Your task to perform on an android device: Is it going to rain today? Image 0: 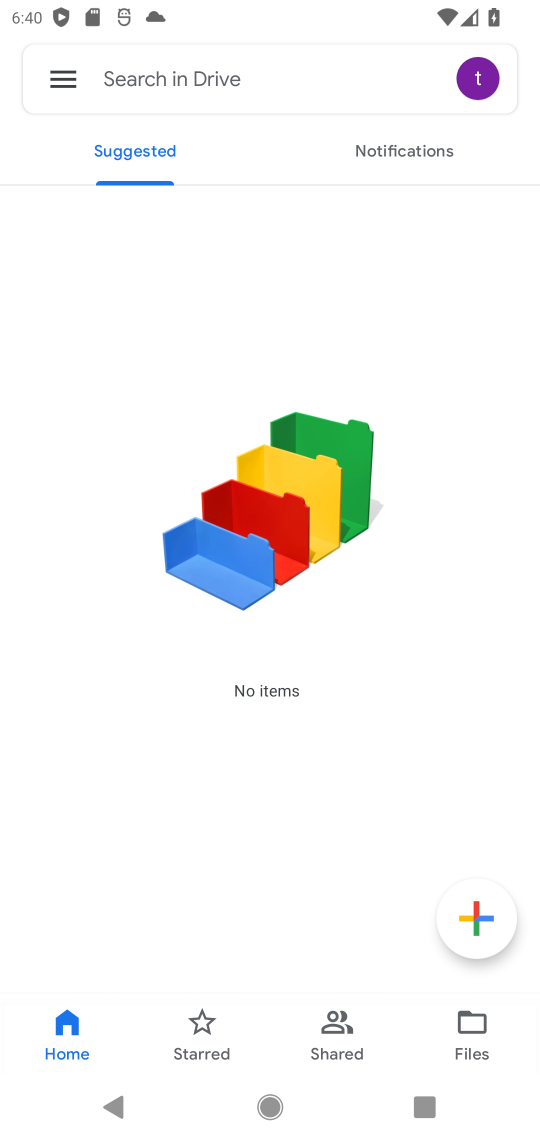
Step 0: press back button
Your task to perform on an android device: Is it going to rain today? Image 1: 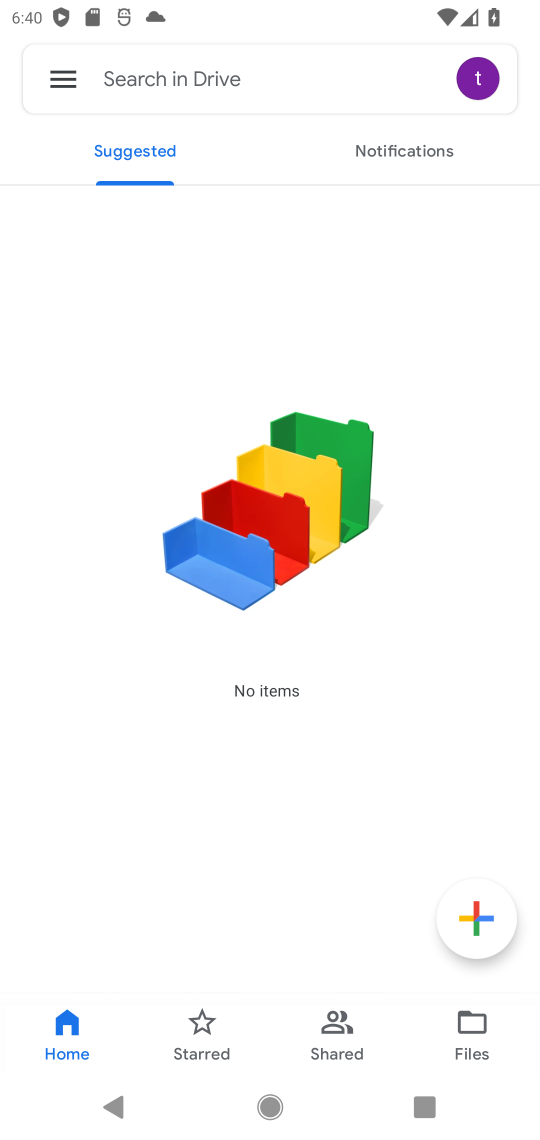
Step 1: press back button
Your task to perform on an android device: Is it going to rain today? Image 2: 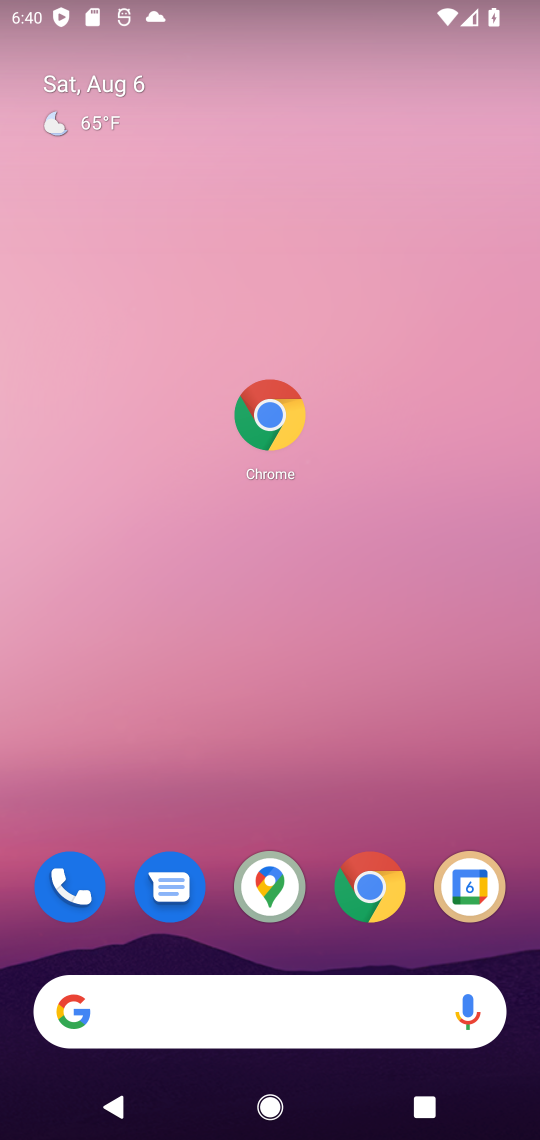
Step 2: click (199, 291)
Your task to perform on an android device: Is it going to rain today? Image 3: 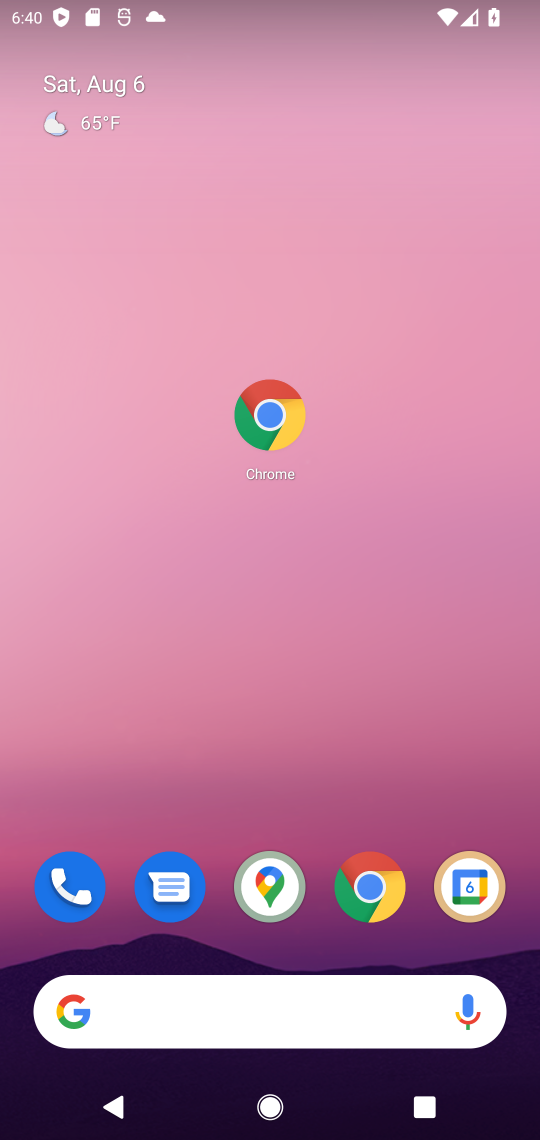
Step 3: drag from (265, 612) to (218, 200)
Your task to perform on an android device: Is it going to rain today? Image 4: 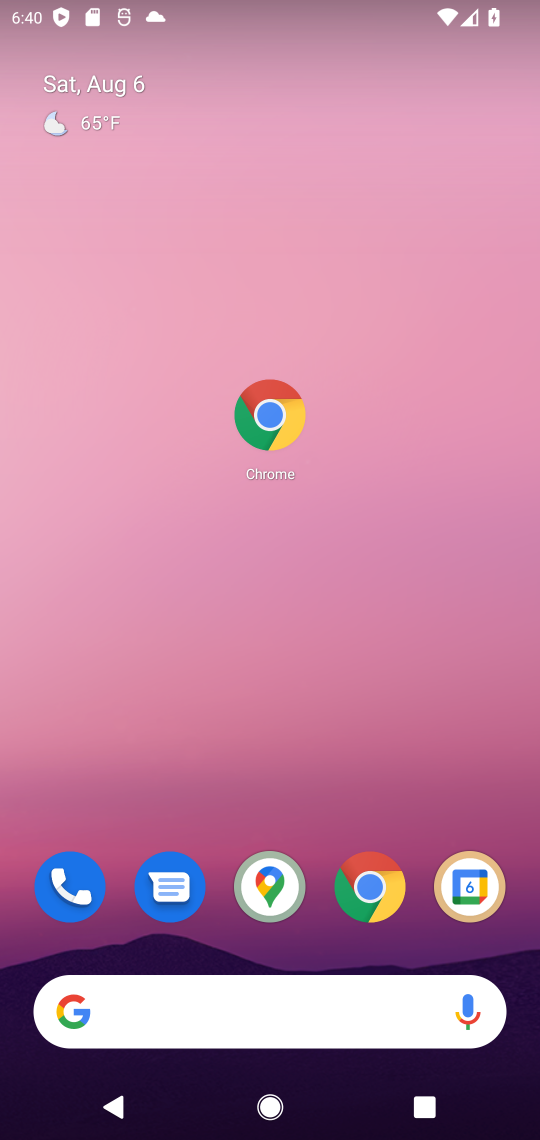
Step 4: drag from (356, 516) to (320, 157)
Your task to perform on an android device: Is it going to rain today? Image 5: 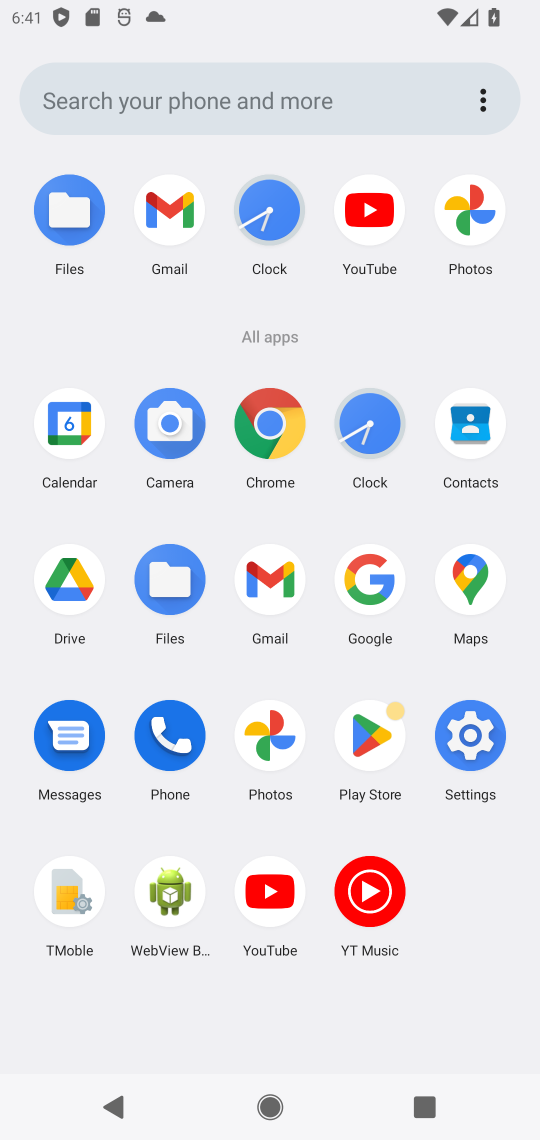
Step 5: click (294, 436)
Your task to perform on an android device: Is it going to rain today? Image 6: 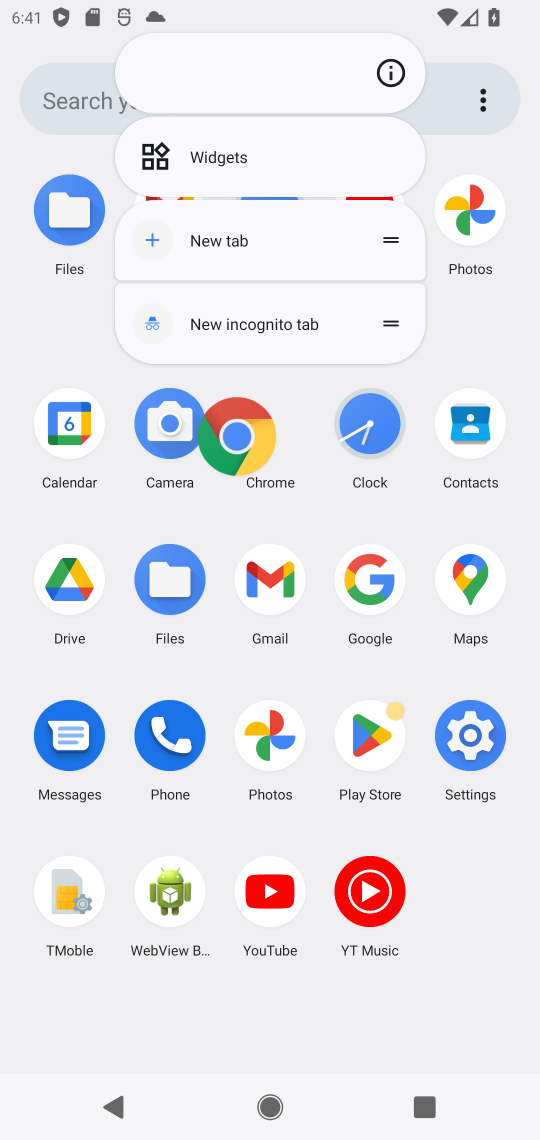
Step 6: click (260, 450)
Your task to perform on an android device: Is it going to rain today? Image 7: 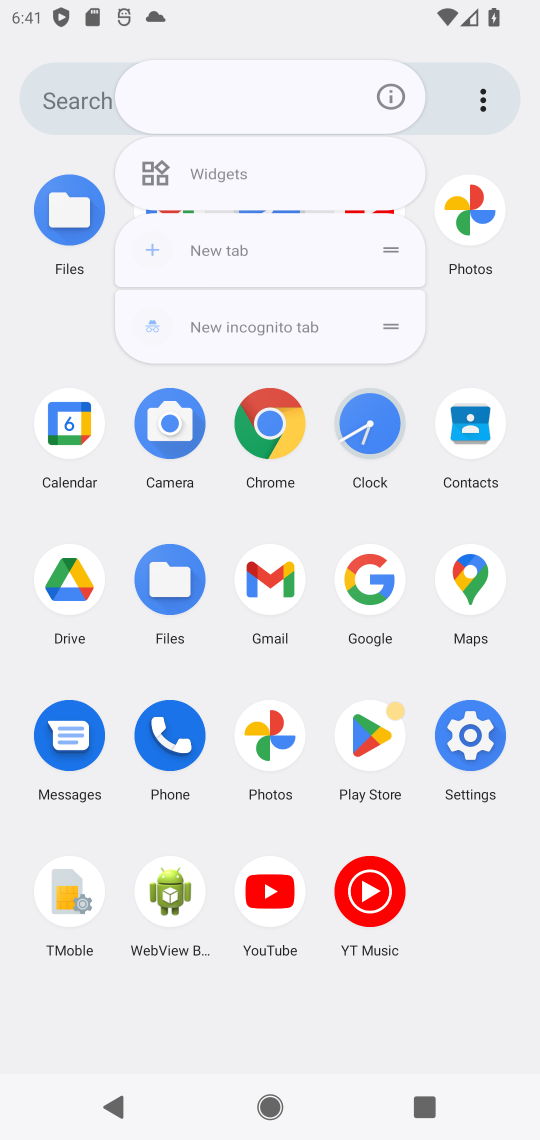
Step 7: click (260, 452)
Your task to perform on an android device: Is it going to rain today? Image 8: 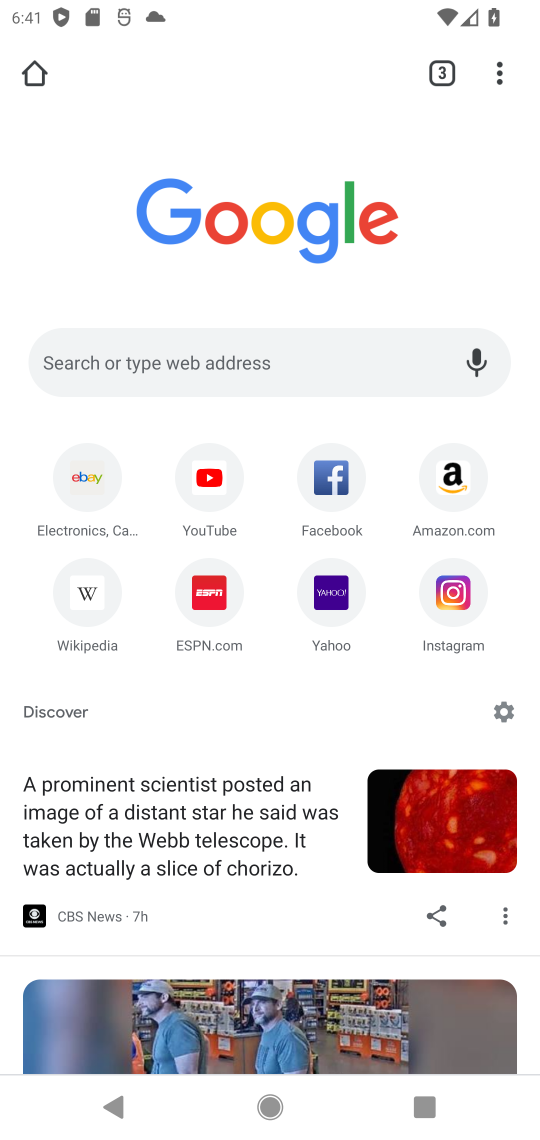
Step 8: click (148, 366)
Your task to perform on an android device: Is it going to rain today? Image 9: 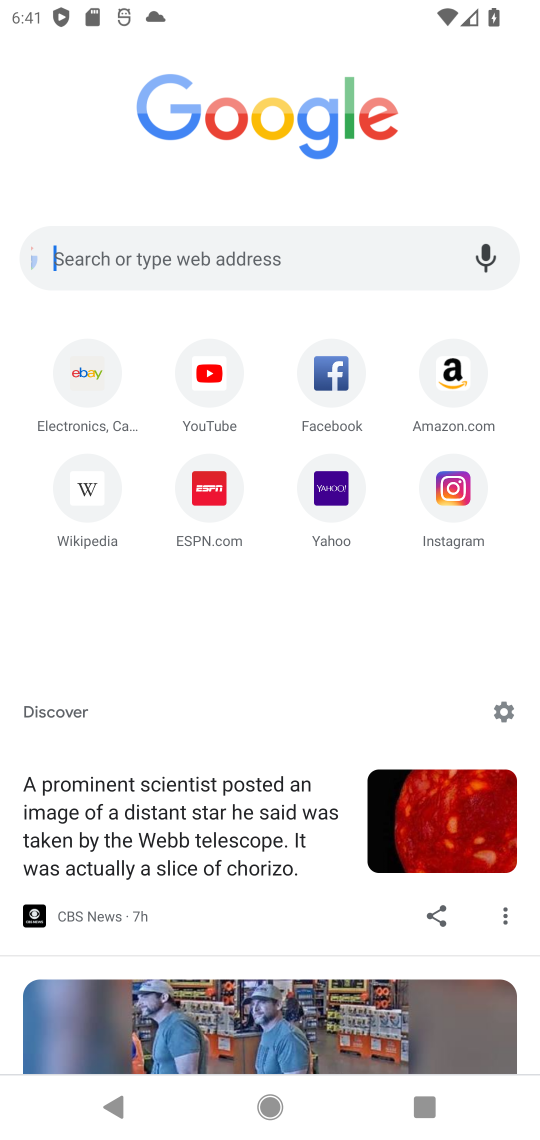
Step 9: click (146, 365)
Your task to perform on an android device: Is it going to rain today? Image 10: 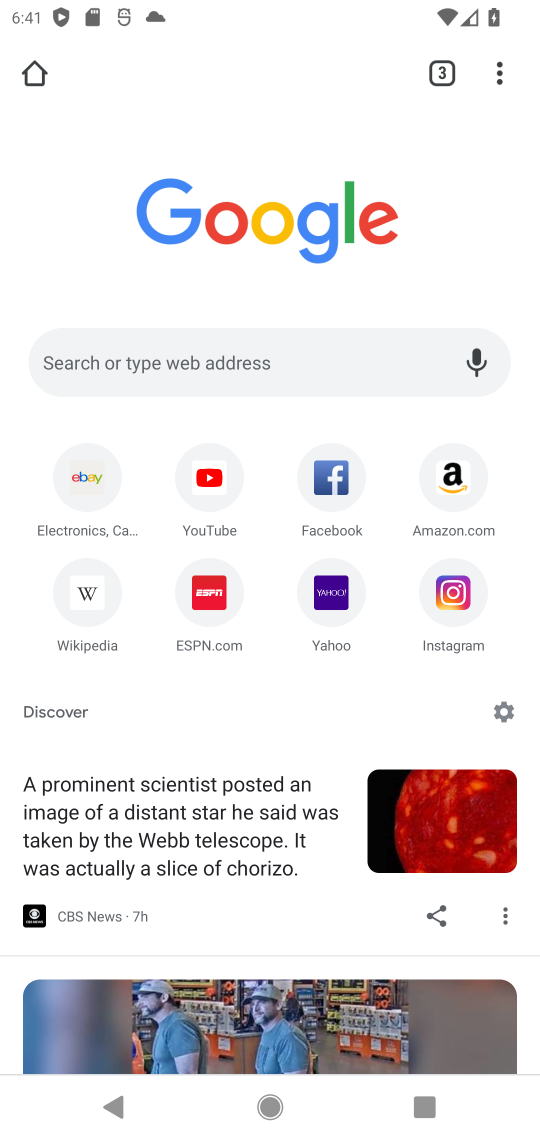
Step 10: click (157, 379)
Your task to perform on an android device: Is it going to rain today? Image 11: 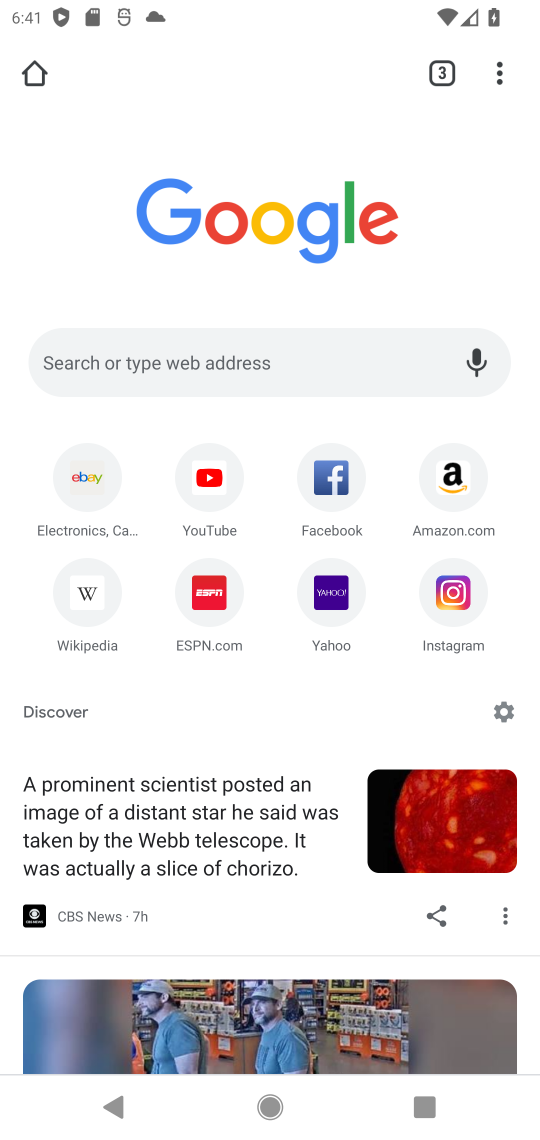
Step 11: click (134, 374)
Your task to perform on an android device: Is it going to rain today? Image 12: 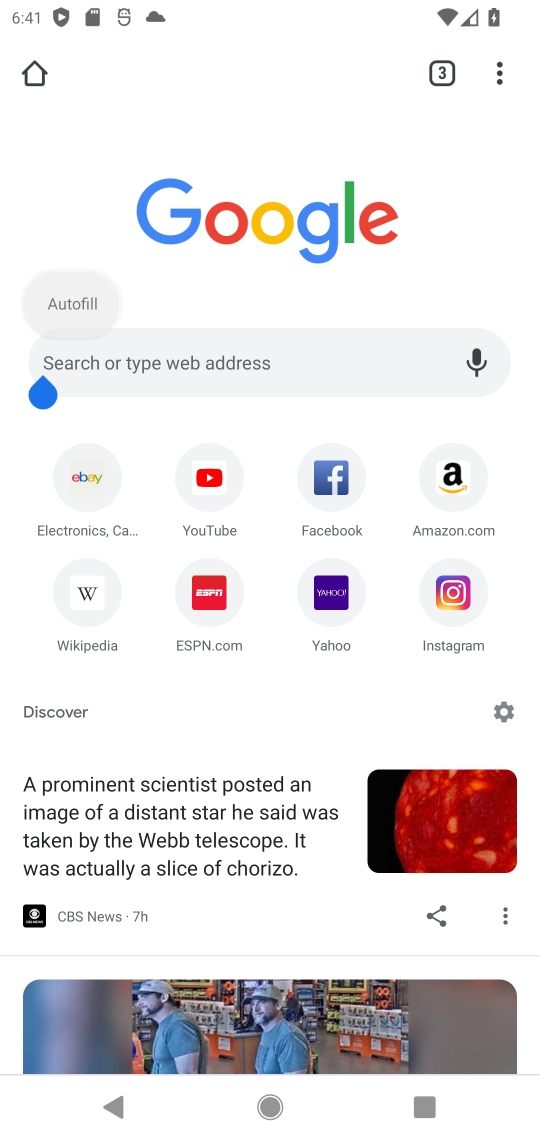
Step 12: click (132, 376)
Your task to perform on an android device: Is it going to rain today? Image 13: 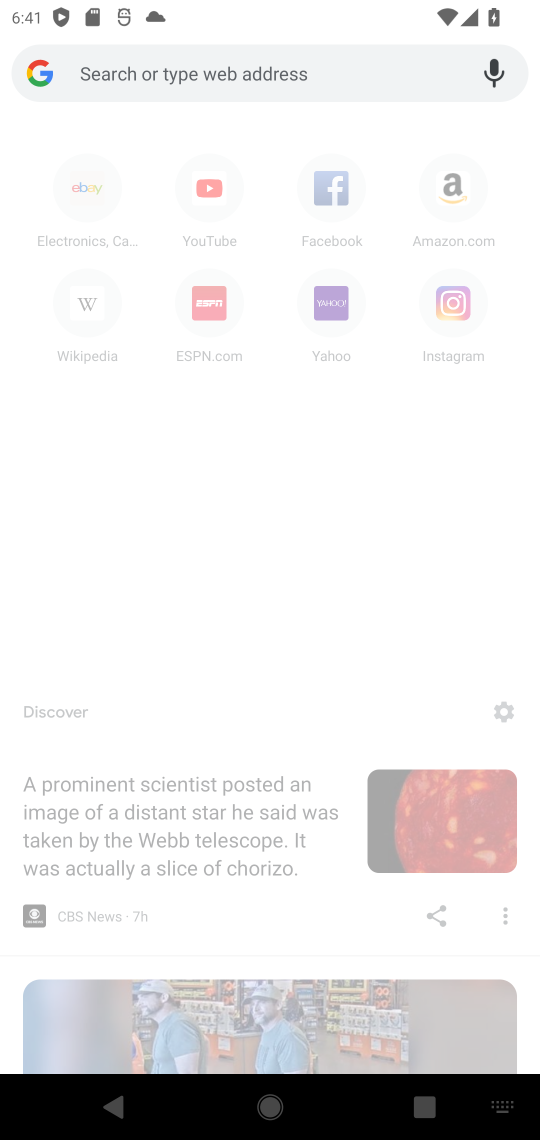
Step 13: type "is it going to rain this weekend?"
Your task to perform on an android device: Is it going to rain today? Image 14: 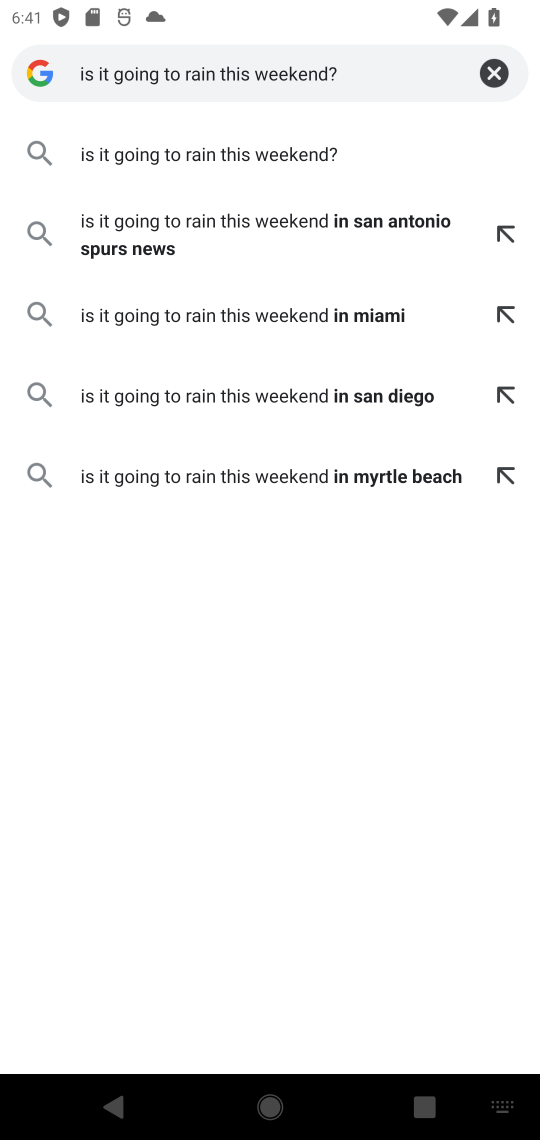
Step 14: click (249, 150)
Your task to perform on an android device: Is it going to rain today? Image 15: 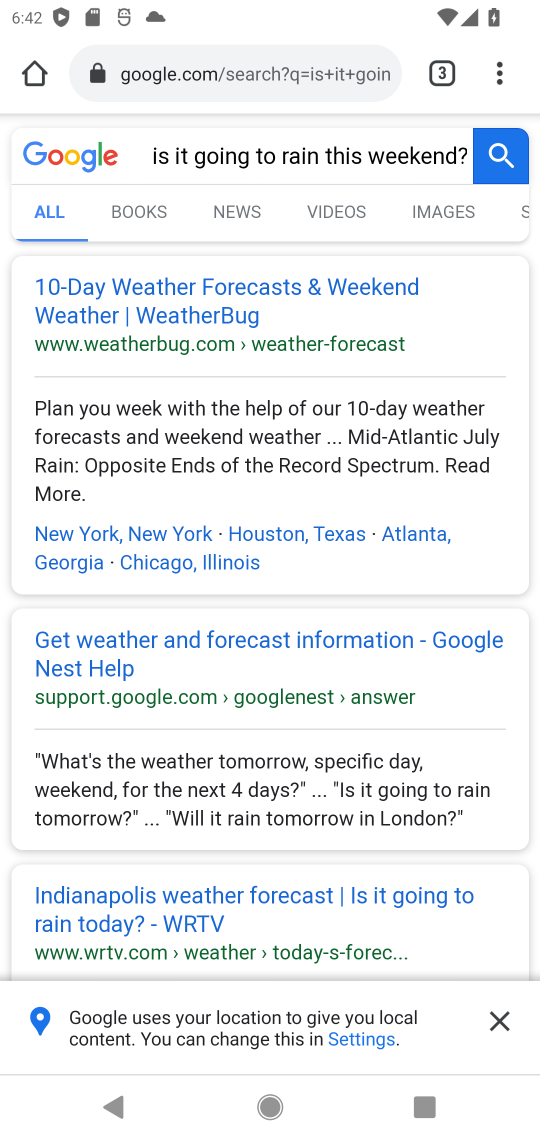
Step 15: task complete